Your task to perform on an android device: When is my next appointment? Image 0: 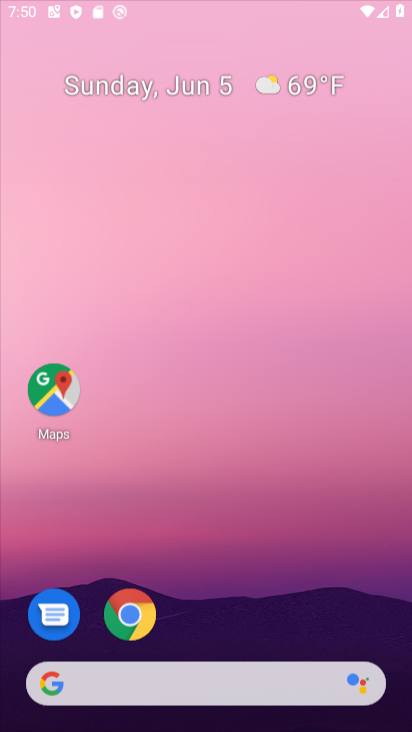
Step 0: click (206, 30)
Your task to perform on an android device: When is my next appointment? Image 1: 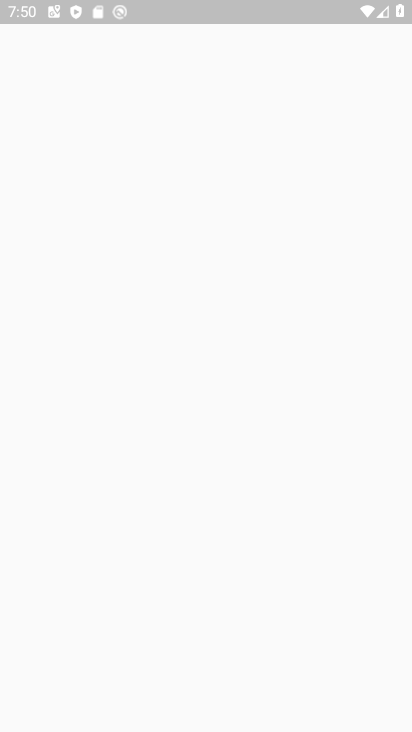
Step 1: press home button
Your task to perform on an android device: When is my next appointment? Image 2: 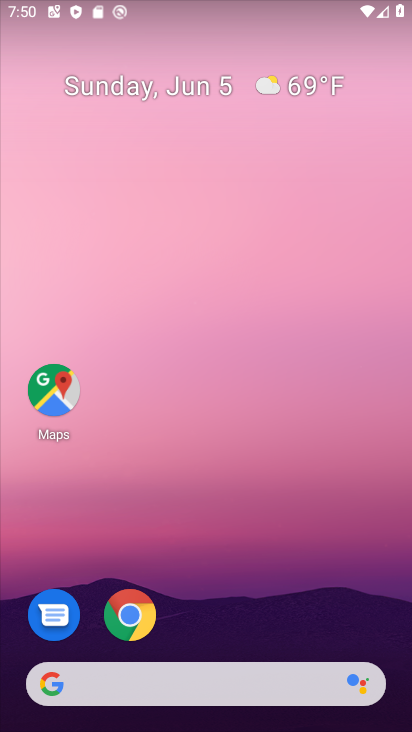
Step 2: drag from (214, 628) to (190, 16)
Your task to perform on an android device: When is my next appointment? Image 3: 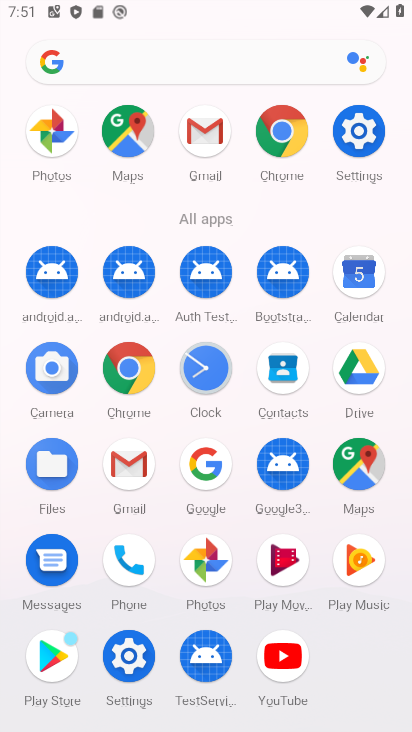
Step 3: click (361, 263)
Your task to perform on an android device: When is my next appointment? Image 4: 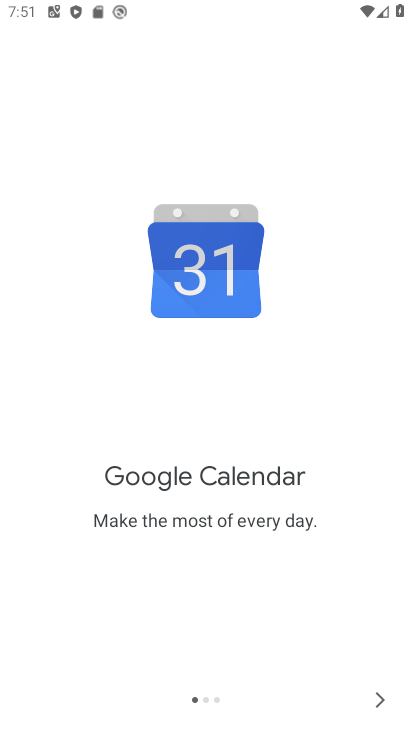
Step 4: click (378, 710)
Your task to perform on an android device: When is my next appointment? Image 5: 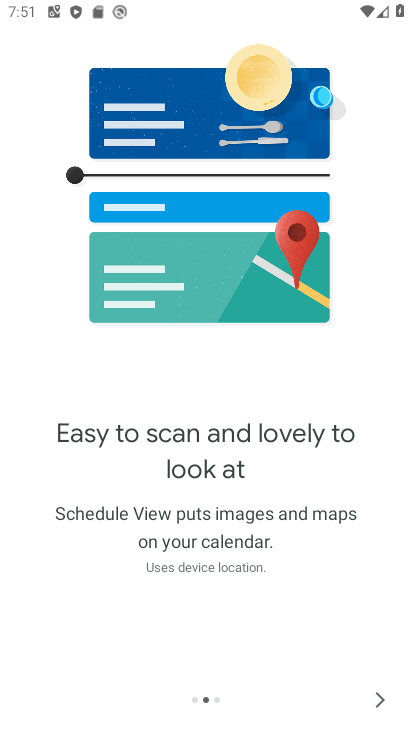
Step 5: click (375, 704)
Your task to perform on an android device: When is my next appointment? Image 6: 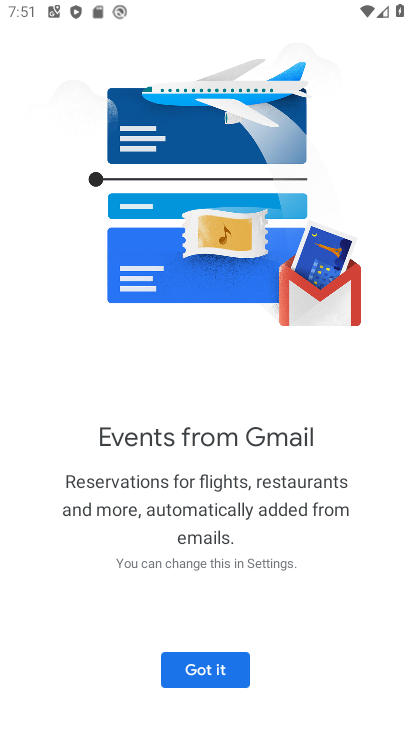
Step 6: click (166, 661)
Your task to perform on an android device: When is my next appointment? Image 7: 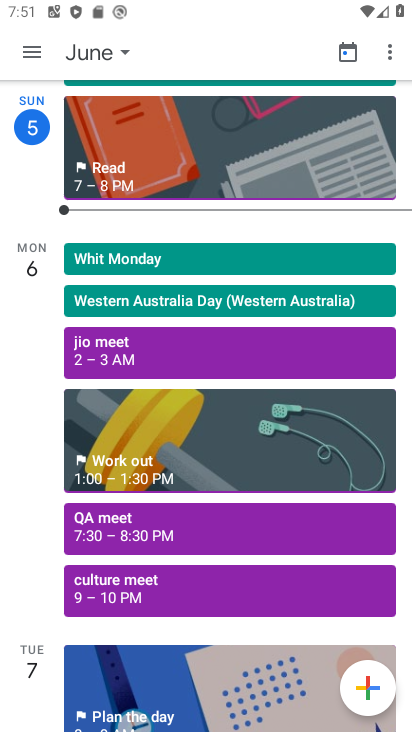
Step 7: task complete